Your task to perform on an android device: Turn on the flashlight Image 0: 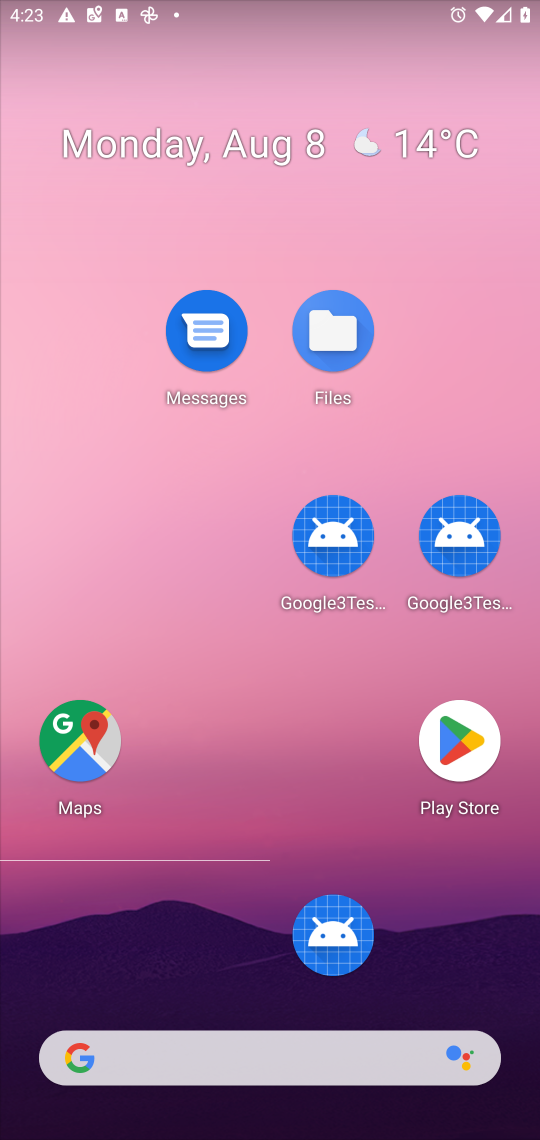
Step 0: drag from (208, 0) to (439, 1001)
Your task to perform on an android device: Turn on the flashlight Image 1: 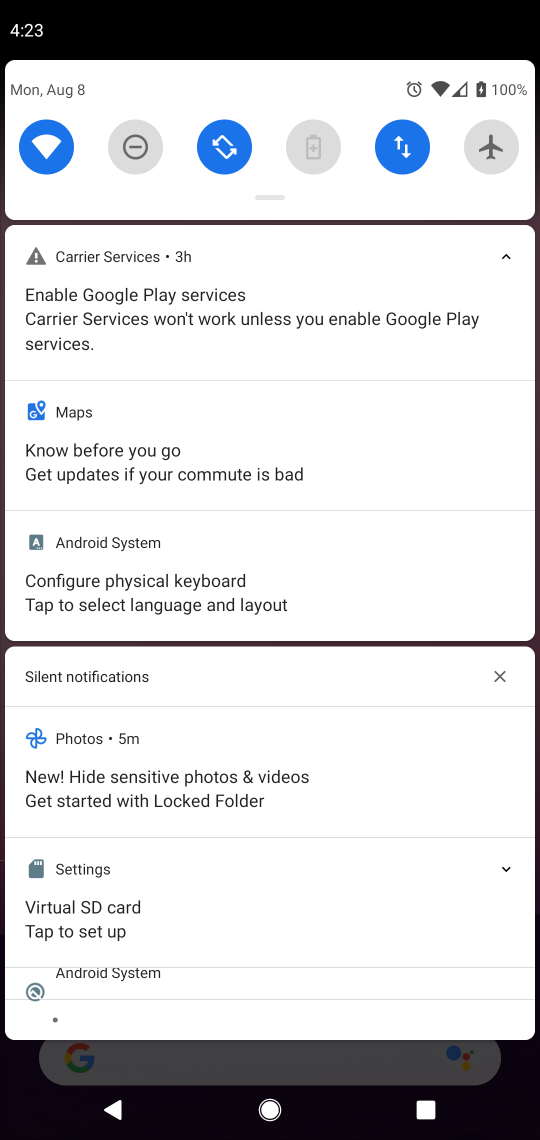
Step 1: task complete